Your task to perform on an android device: turn on priority inbox in the gmail app Image 0: 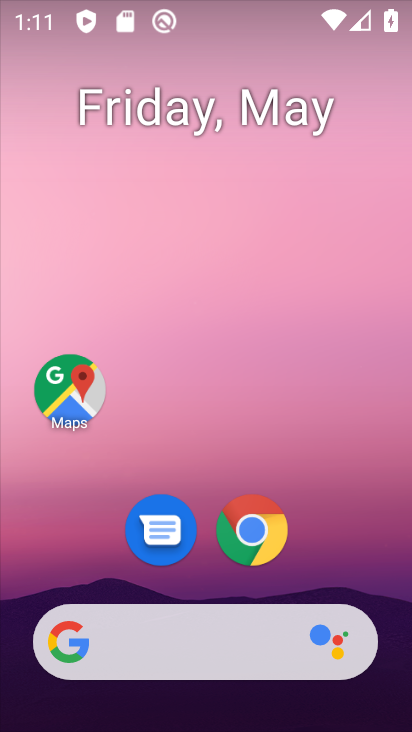
Step 0: drag from (338, 578) to (332, 12)
Your task to perform on an android device: turn on priority inbox in the gmail app Image 1: 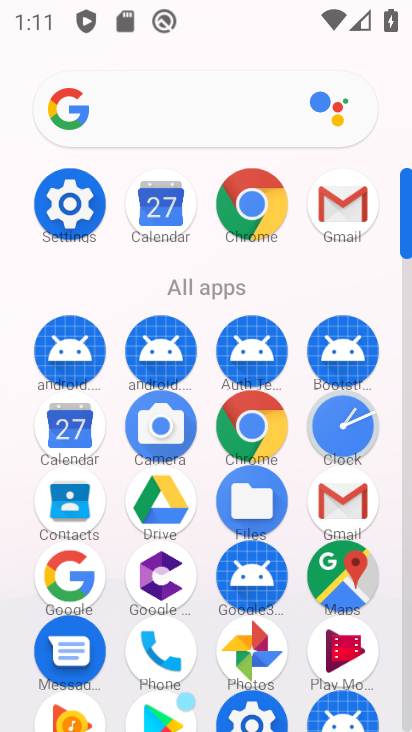
Step 1: click (350, 503)
Your task to perform on an android device: turn on priority inbox in the gmail app Image 2: 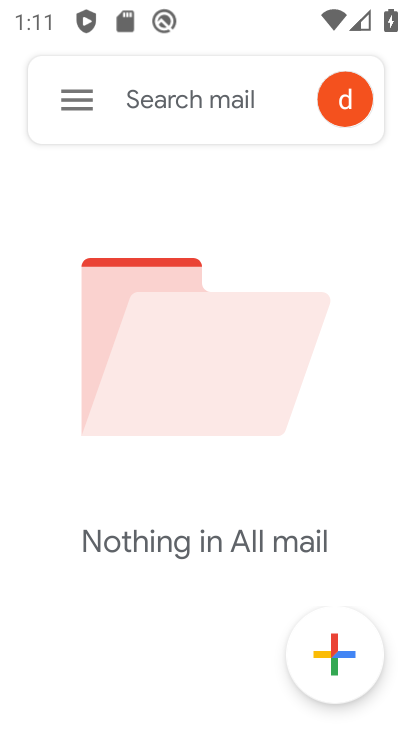
Step 2: click (63, 91)
Your task to perform on an android device: turn on priority inbox in the gmail app Image 3: 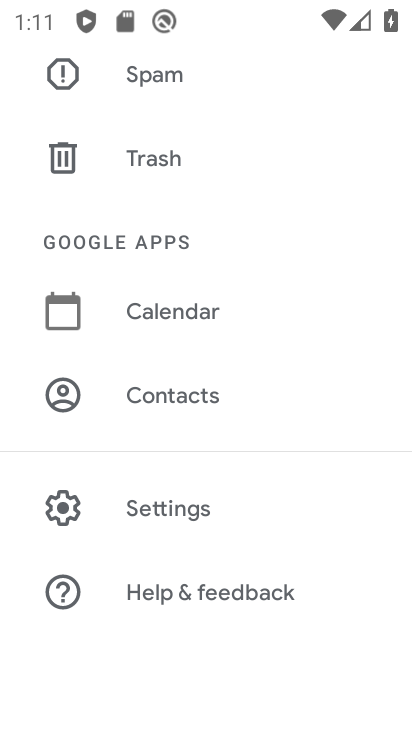
Step 3: click (190, 498)
Your task to perform on an android device: turn on priority inbox in the gmail app Image 4: 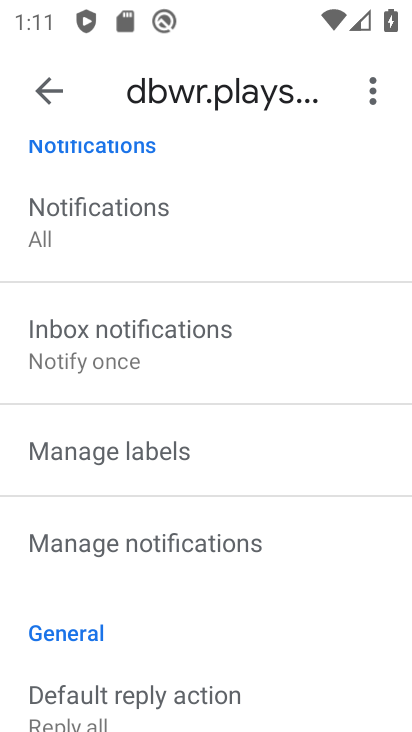
Step 4: drag from (170, 294) to (204, 727)
Your task to perform on an android device: turn on priority inbox in the gmail app Image 5: 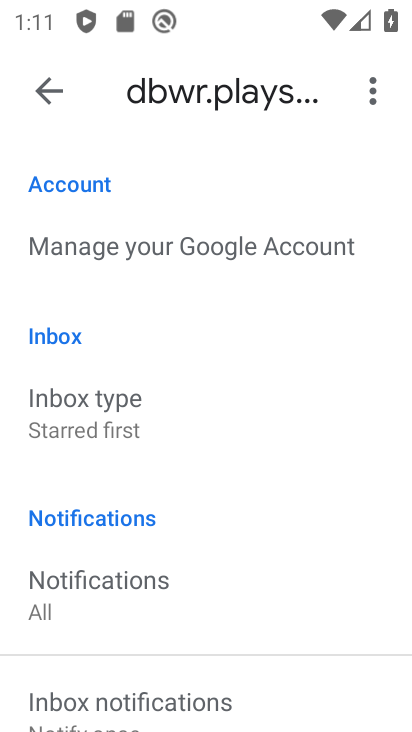
Step 5: click (87, 425)
Your task to perform on an android device: turn on priority inbox in the gmail app Image 6: 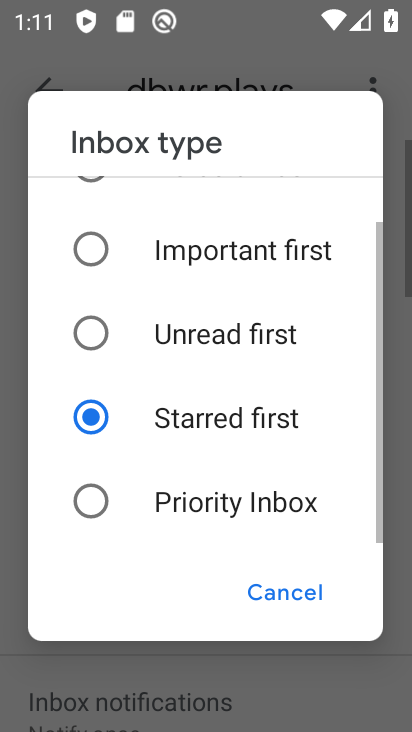
Step 6: drag from (173, 243) to (235, 573)
Your task to perform on an android device: turn on priority inbox in the gmail app Image 7: 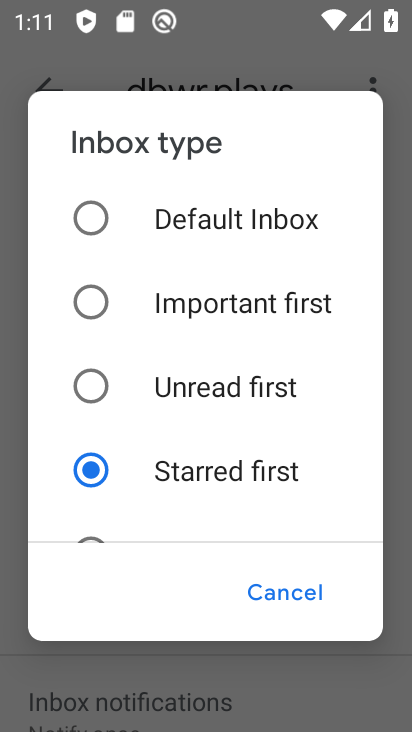
Step 7: drag from (162, 503) to (152, 318)
Your task to perform on an android device: turn on priority inbox in the gmail app Image 8: 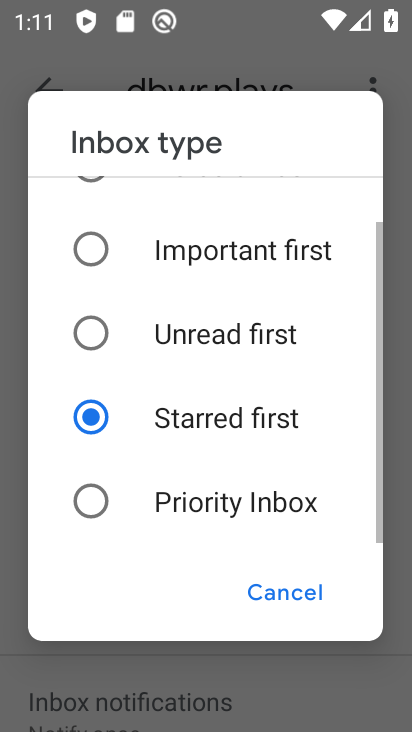
Step 8: click (151, 504)
Your task to perform on an android device: turn on priority inbox in the gmail app Image 9: 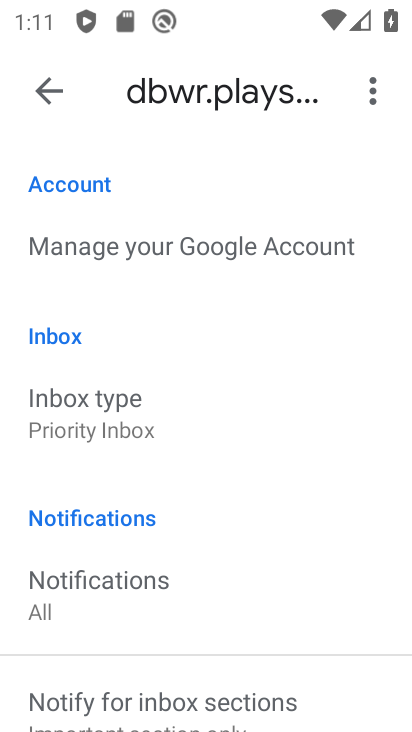
Step 9: task complete